Your task to perform on an android device: Open Google Image 0: 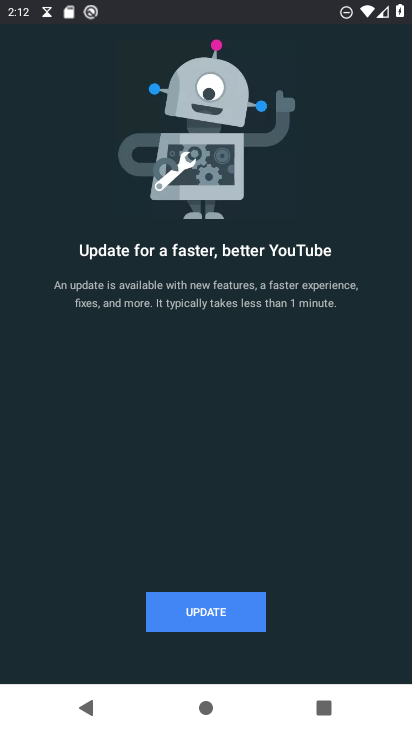
Step 0: press back button
Your task to perform on an android device: Open Google Image 1: 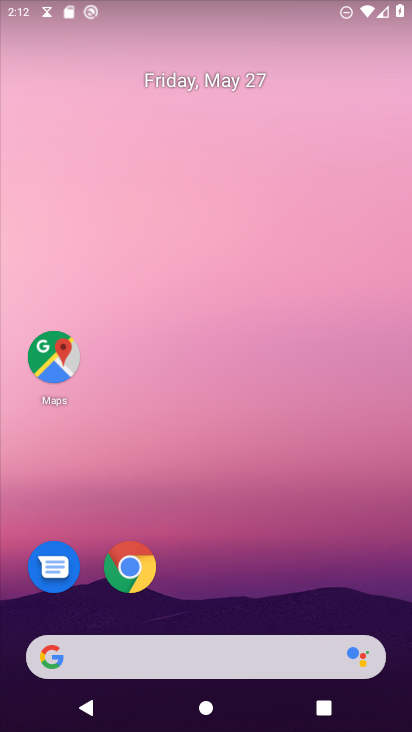
Step 1: drag from (238, 609) to (243, 112)
Your task to perform on an android device: Open Google Image 2: 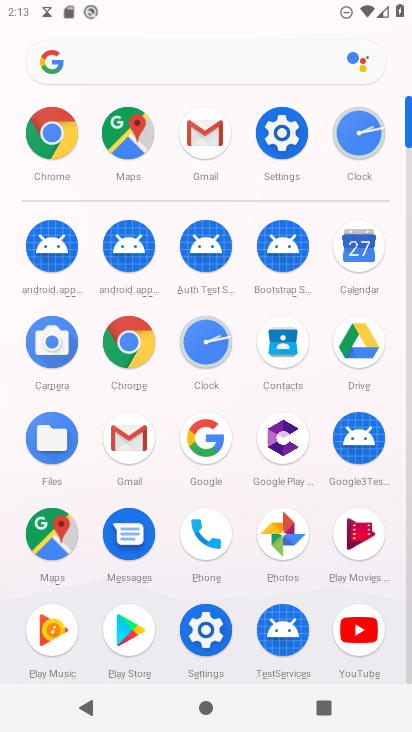
Step 2: click (200, 437)
Your task to perform on an android device: Open Google Image 3: 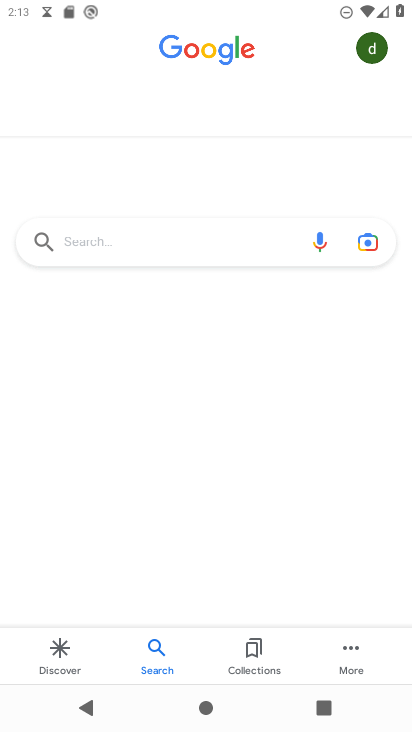
Step 3: task complete